Your task to perform on an android device: Go to eBay Image 0: 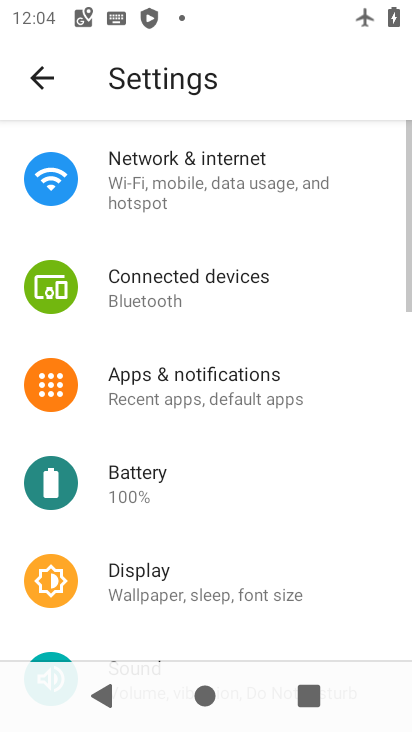
Step 0: press home button
Your task to perform on an android device: Go to eBay Image 1: 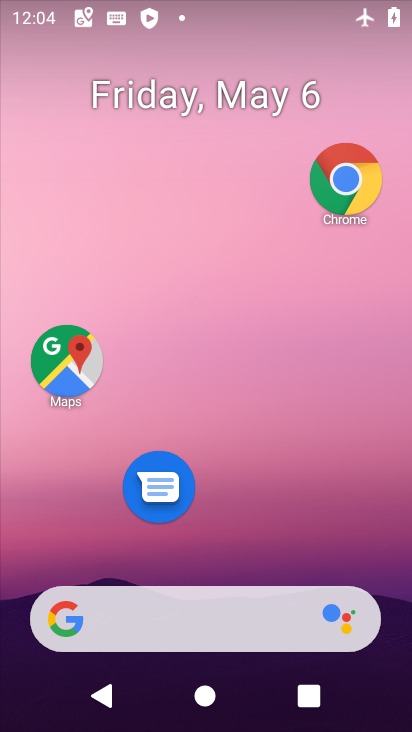
Step 1: click (316, 529)
Your task to perform on an android device: Go to eBay Image 2: 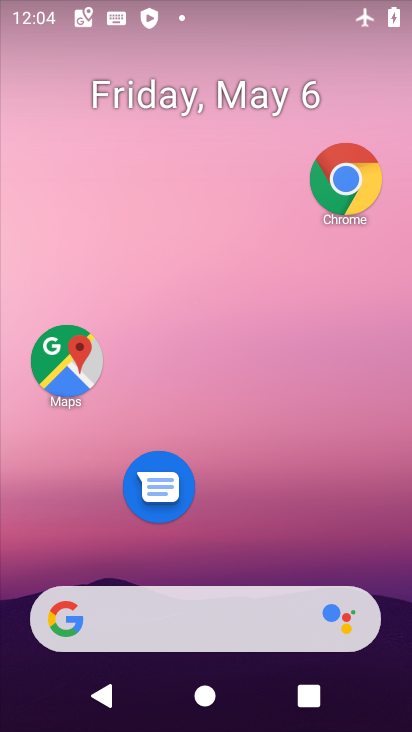
Step 2: drag from (316, 528) to (316, 96)
Your task to perform on an android device: Go to eBay Image 3: 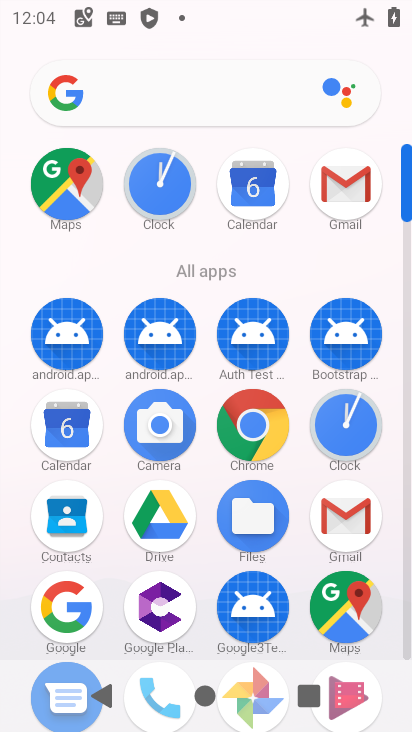
Step 3: click (293, 447)
Your task to perform on an android device: Go to eBay Image 4: 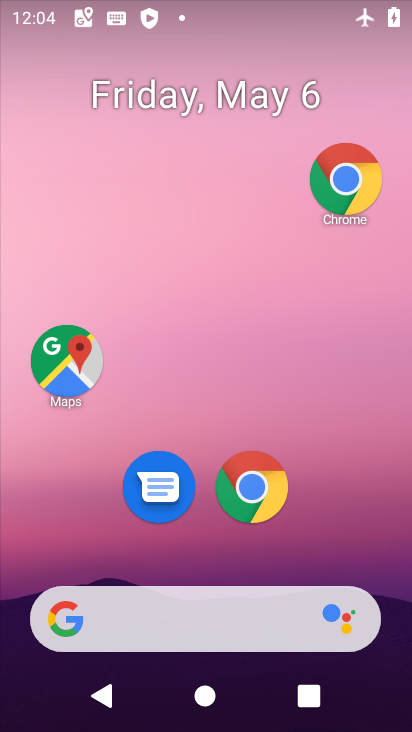
Step 4: drag from (316, 530) to (283, 302)
Your task to perform on an android device: Go to eBay Image 5: 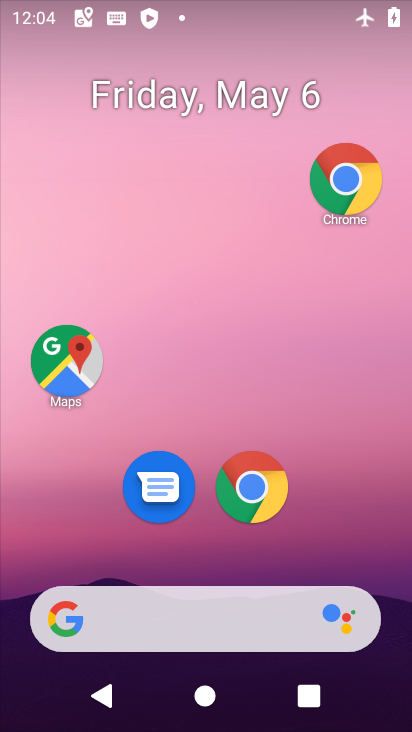
Step 5: drag from (335, 507) to (287, 162)
Your task to perform on an android device: Go to eBay Image 6: 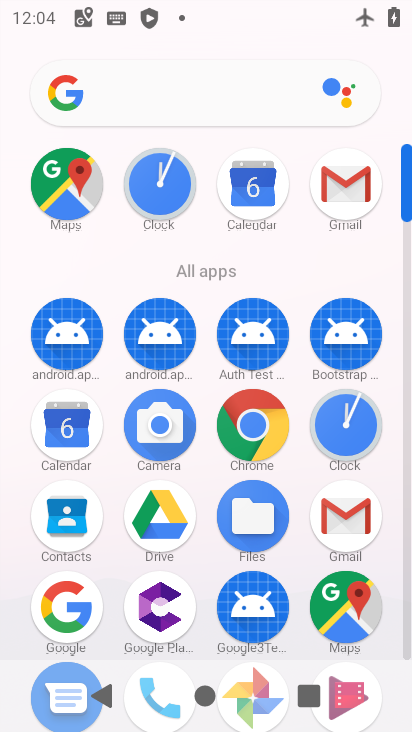
Step 6: click (408, 542)
Your task to perform on an android device: Go to eBay Image 7: 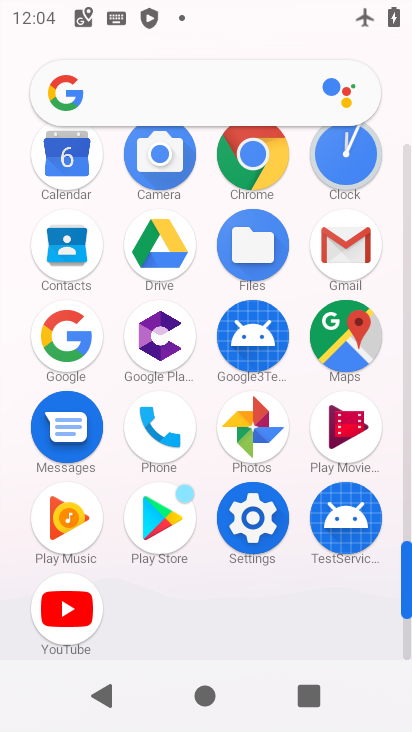
Step 7: click (249, 544)
Your task to perform on an android device: Go to eBay Image 8: 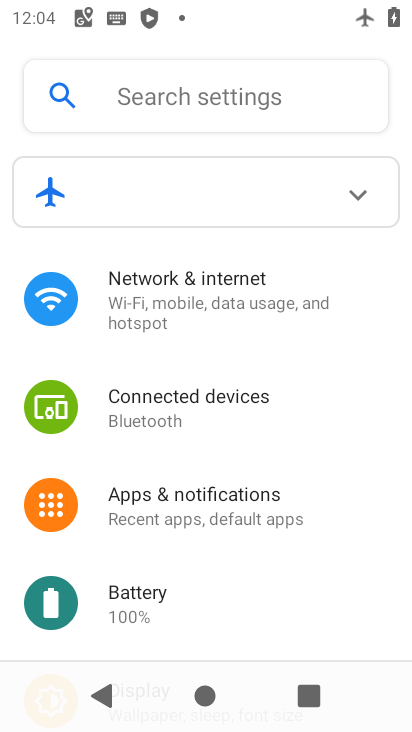
Step 8: drag from (192, 528) to (192, 481)
Your task to perform on an android device: Go to eBay Image 9: 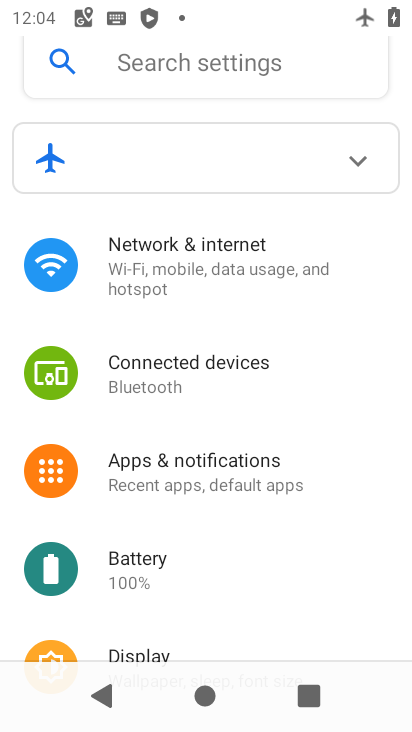
Step 9: click (214, 295)
Your task to perform on an android device: Go to eBay Image 10: 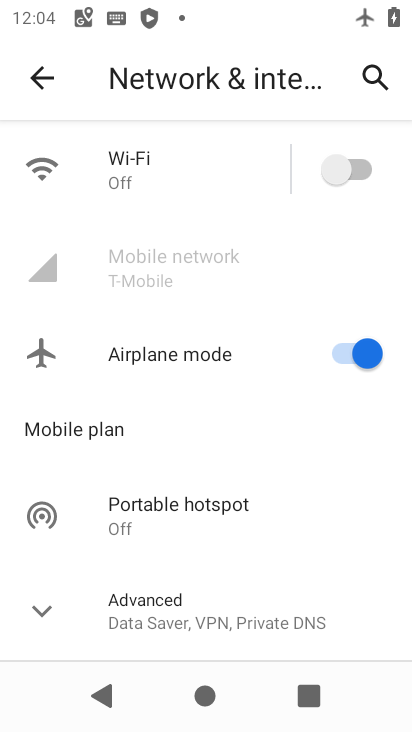
Step 10: click (322, 163)
Your task to perform on an android device: Go to eBay Image 11: 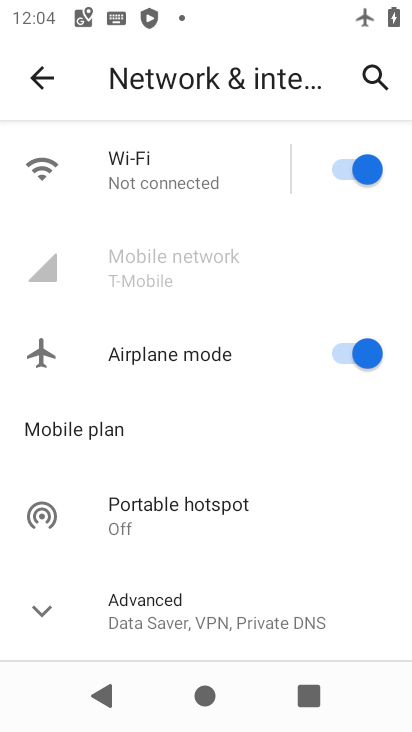
Step 11: click (370, 380)
Your task to perform on an android device: Go to eBay Image 12: 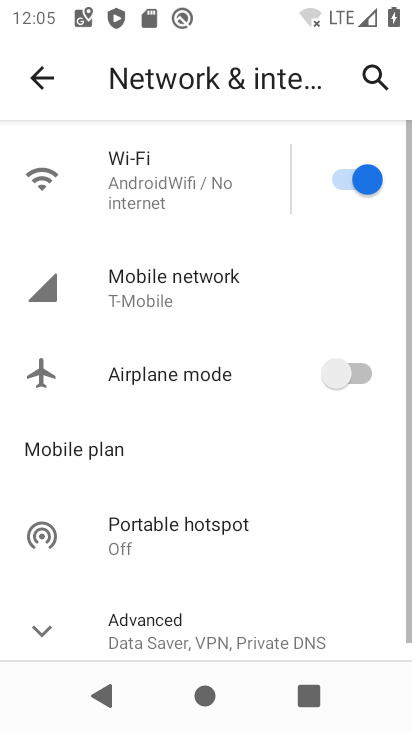
Step 12: press home button
Your task to perform on an android device: Go to eBay Image 13: 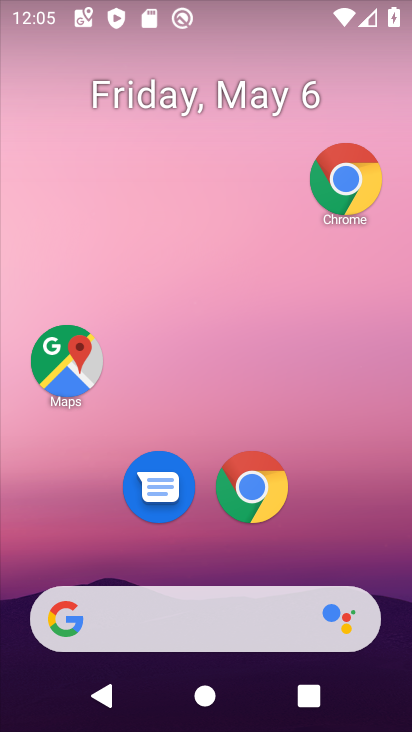
Step 13: drag from (347, 536) to (266, 224)
Your task to perform on an android device: Go to eBay Image 14: 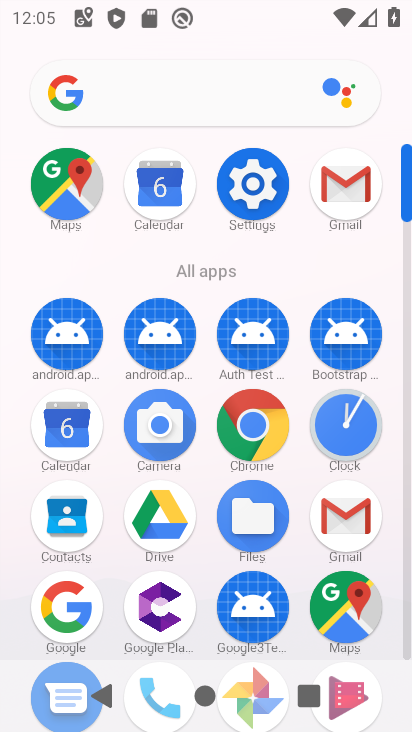
Step 14: click (230, 416)
Your task to perform on an android device: Go to eBay Image 15: 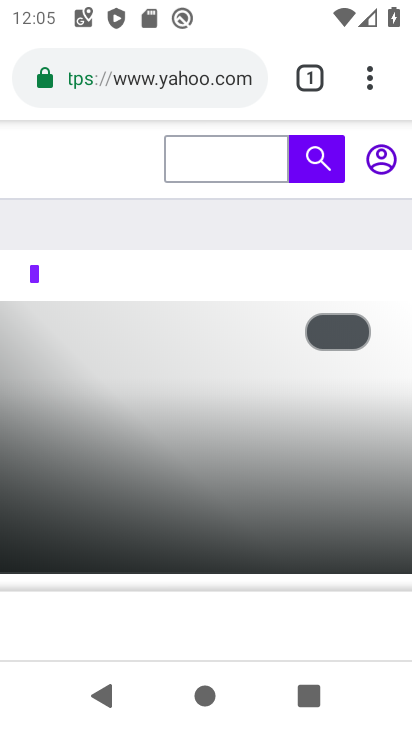
Step 15: click (210, 103)
Your task to perform on an android device: Go to eBay Image 16: 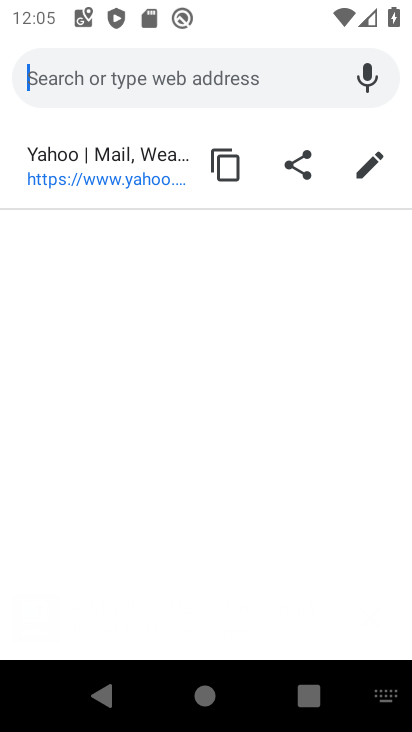
Step 16: type "ebay.com"
Your task to perform on an android device: Go to eBay Image 17: 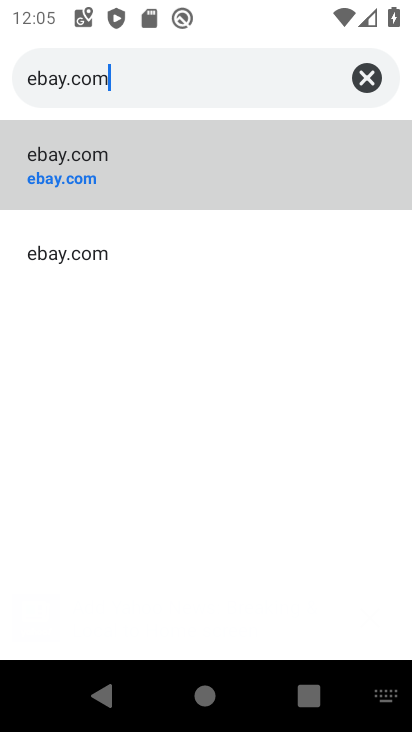
Step 17: click (211, 183)
Your task to perform on an android device: Go to eBay Image 18: 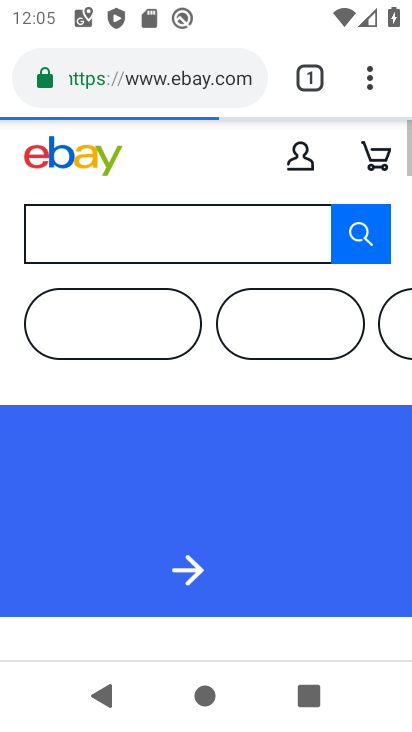
Step 18: task complete